Your task to perform on an android device: check battery use Image 0: 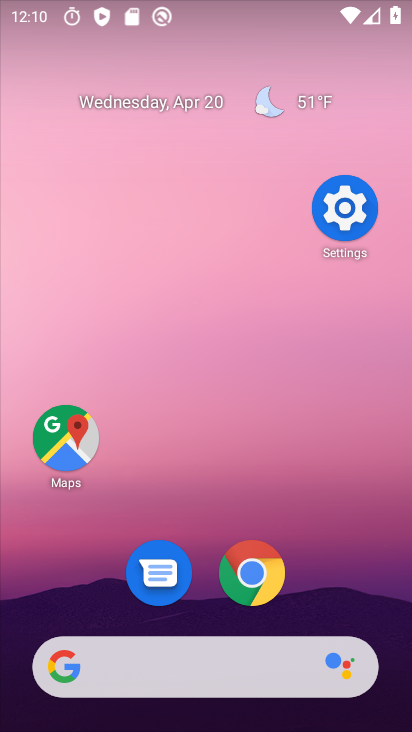
Step 0: drag from (328, 590) to (305, 101)
Your task to perform on an android device: check battery use Image 1: 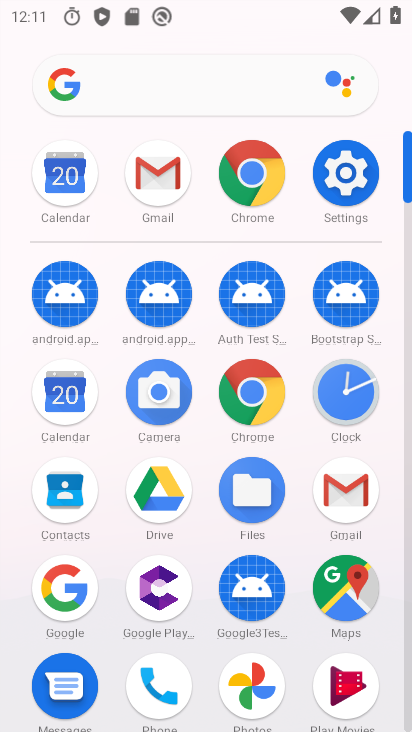
Step 1: click (351, 205)
Your task to perform on an android device: check battery use Image 2: 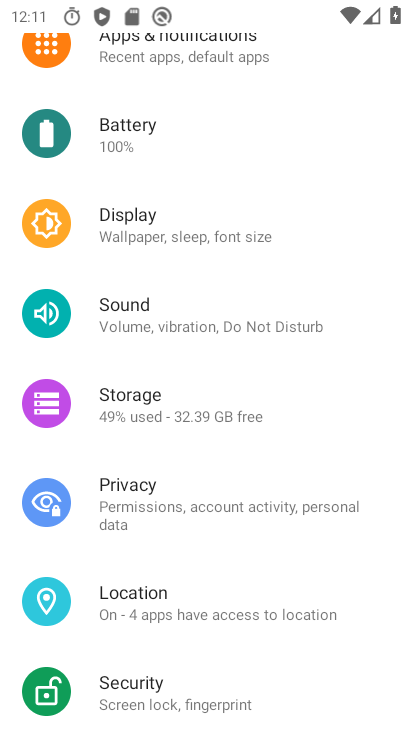
Step 2: click (150, 154)
Your task to perform on an android device: check battery use Image 3: 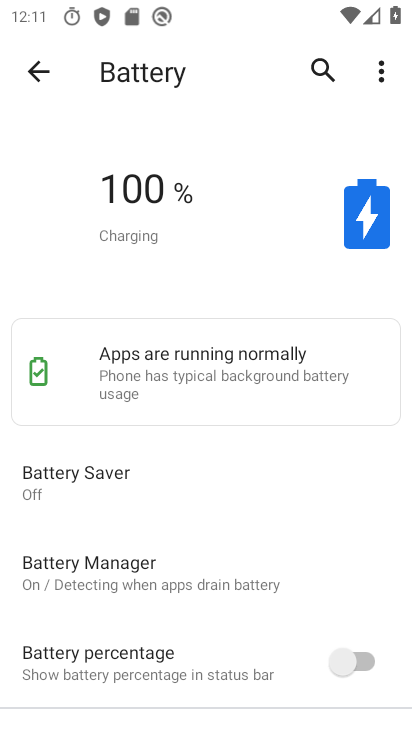
Step 3: task complete